Your task to perform on an android device: Go to display settings Image 0: 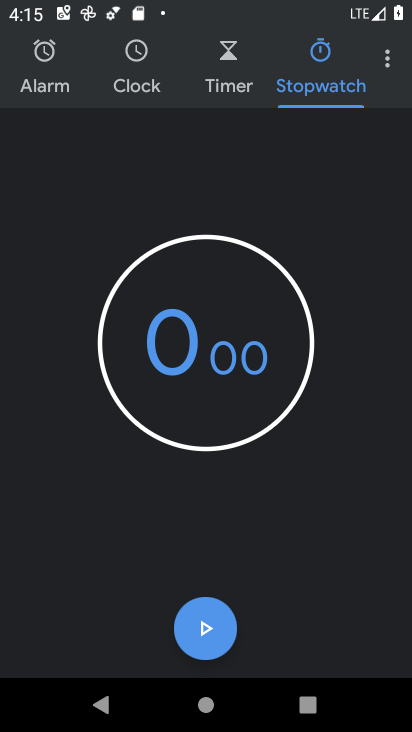
Step 0: press home button
Your task to perform on an android device: Go to display settings Image 1: 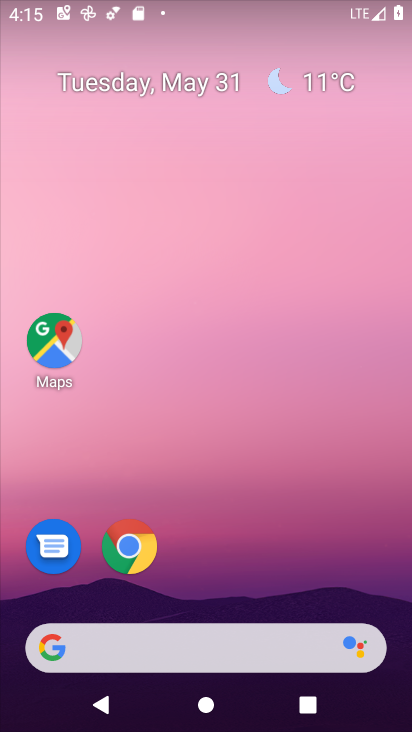
Step 1: drag from (250, 566) to (137, 2)
Your task to perform on an android device: Go to display settings Image 2: 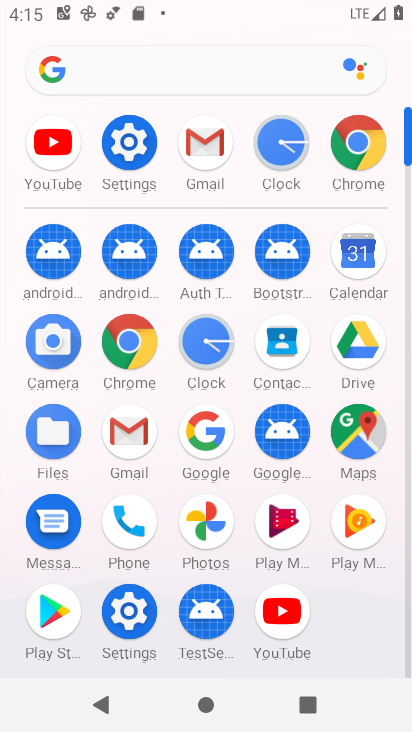
Step 2: click (120, 143)
Your task to perform on an android device: Go to display settings Image 3: 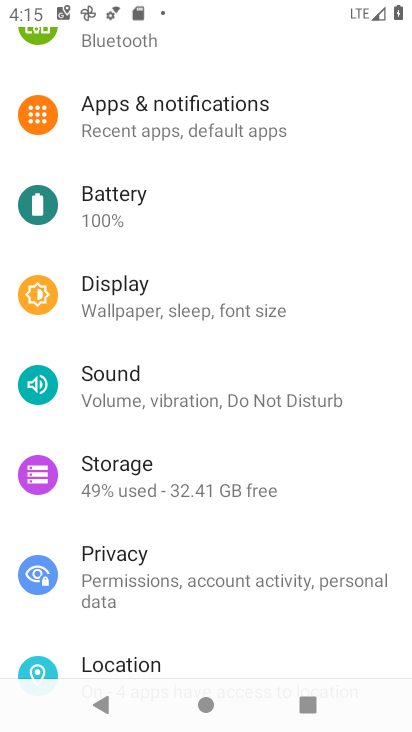
Step 3: click (189, 287)
Your task to perform on an android device: Go to display settings Image 4: 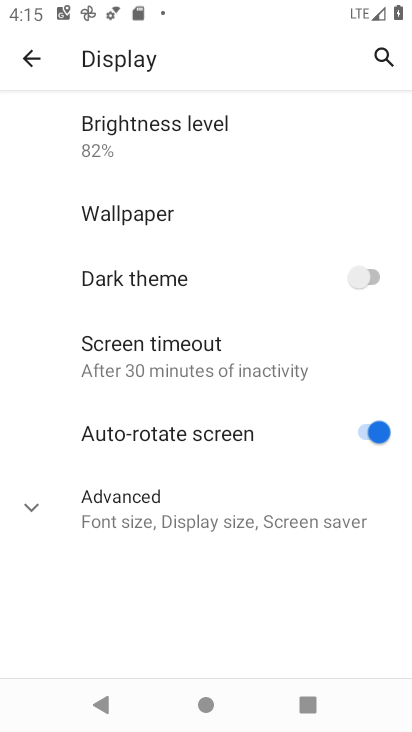
Step 4: task complete